Your task to perform on an android device: Search for sushi restaurants on Maps Image 0: 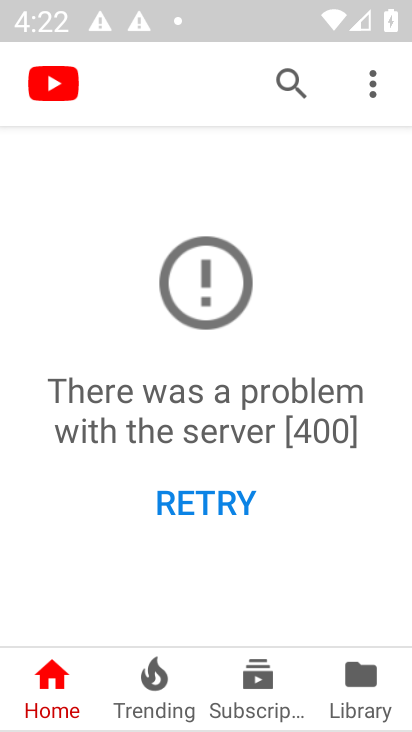
Step 0: press home button
Your task to perform on an android device: Search for sushi restaurants on Maps Image 1: 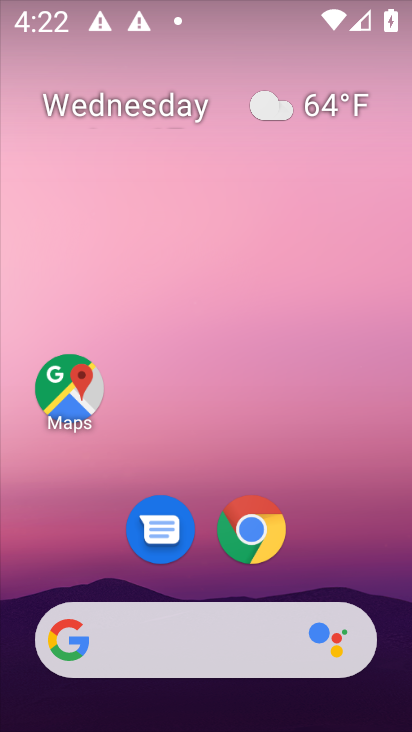
Step 1: click (83, 394)
Your task to perform on an android device: Search for sushi restaurants on Maps Image 2: 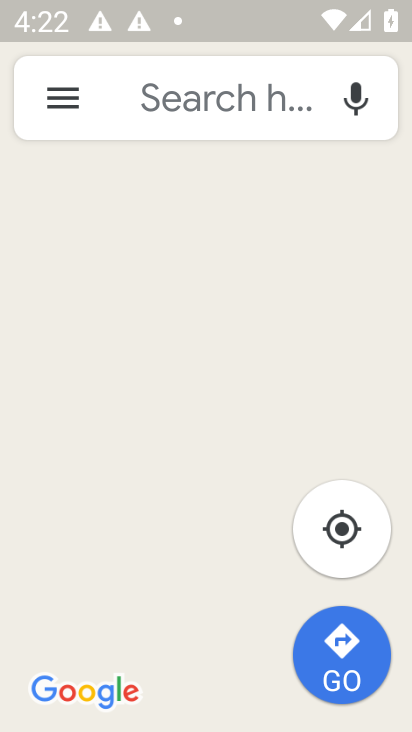
Step 2: click (206, 94)
Your task to perform on an android device: Search for sushi restaurants on Maps Image 3: 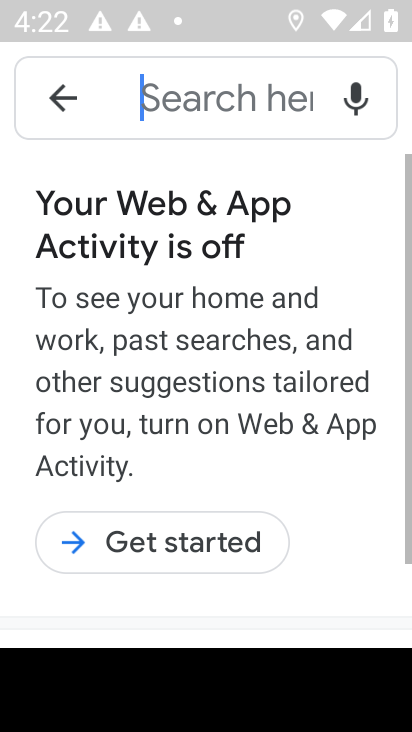
Step 3: type "Sushi restaurants"
Your task to perform on an android device: Search for sushi restaurants on Maps Image 4: 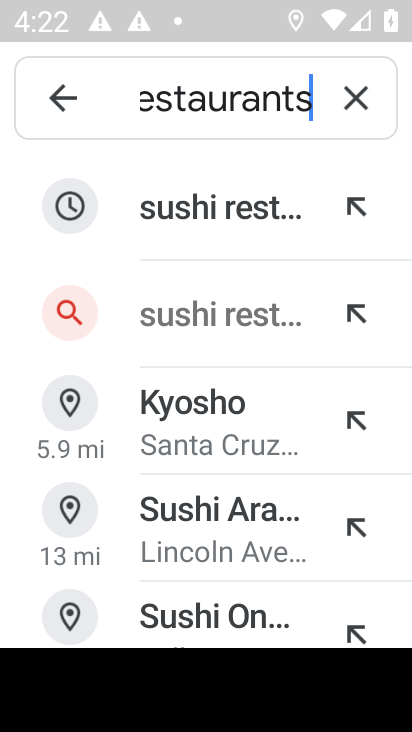
Step 4: click (210, 207)
Your task to perform on an android device: Search for sushi restaurants on Maps Image 5: 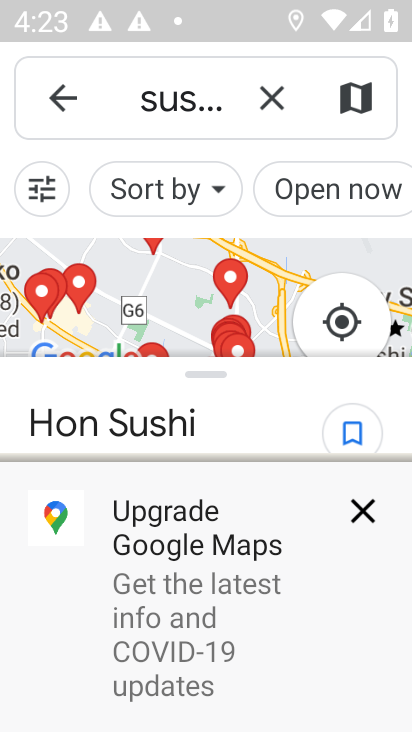
Step 5: click (359, 503)
Your task to perform on an android device: Search for sushi restaurants on Maps Image 6: 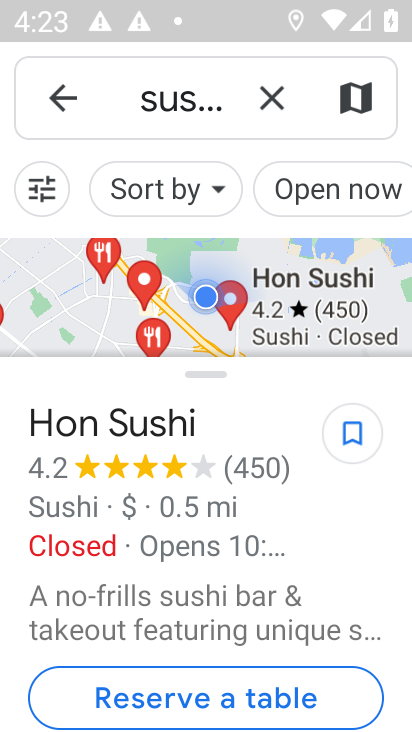
Step 6: task complete